Your task to perform on an android device: check battery use Image 0: 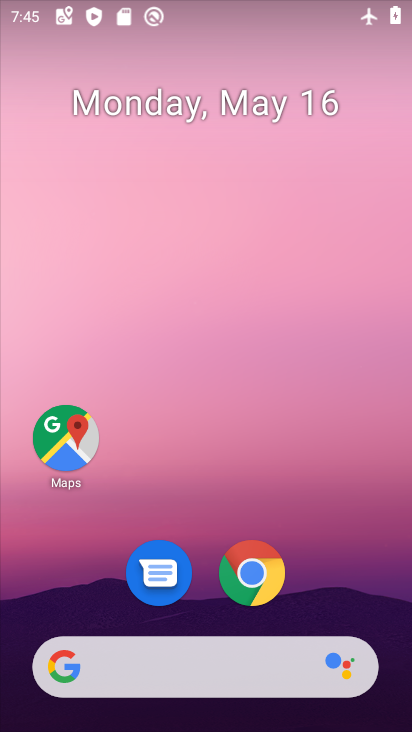
Step 0: drag from (351, 565) to (170, 60)
Your task to perform on an android device: check battery use Image 1: 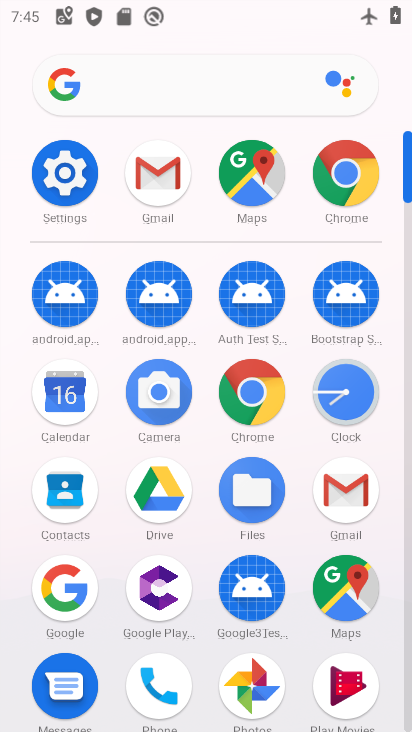
Step 1: click (91, 168)
Your task to perform on an android device: check battery use Image 2: 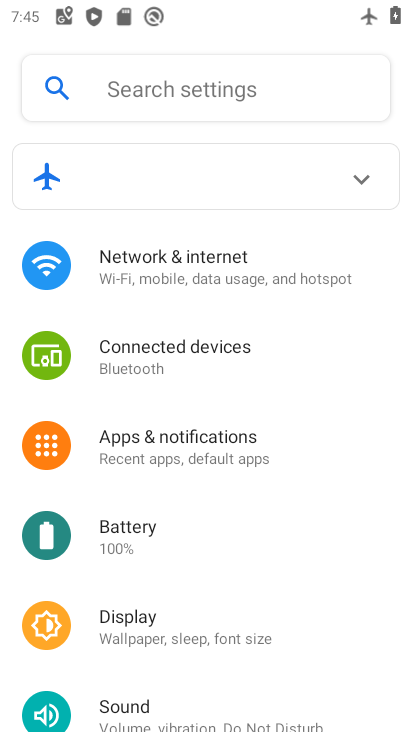
Step 2: click (170, 517)
Your task to perform on an android device: check battery use Image 3: 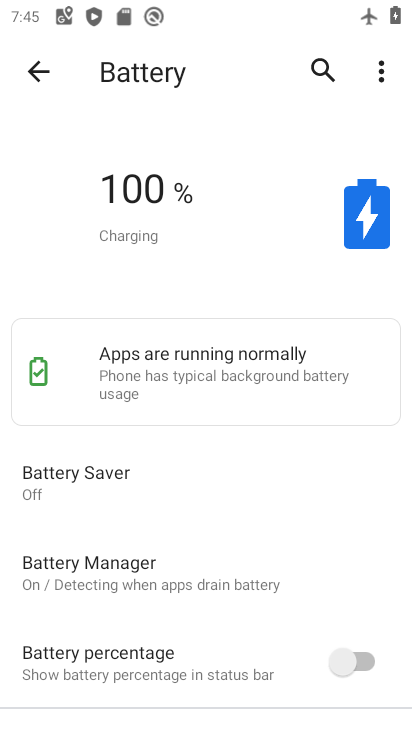
Step 3: task complete